Your task to perform on an android device: open app "Indeed Job Search" (install if not already installed) and go to login screen Image 0: 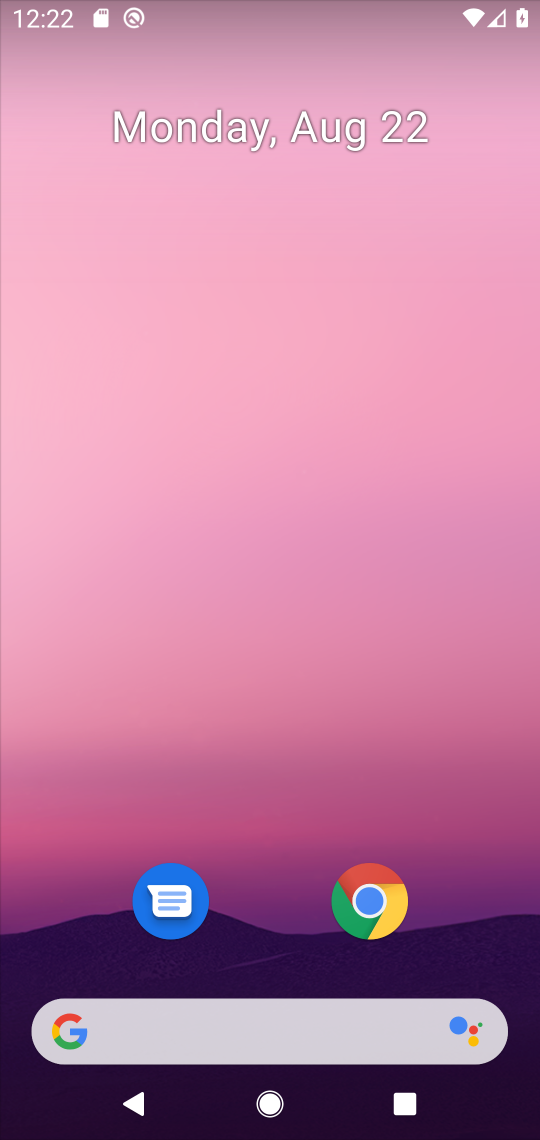
Step 0: drag from (343, 961) to (270, 99)
Your task to perform on an android device: open app "Indeed Job Search" (install if not already installed) and go to login screen Image 1: 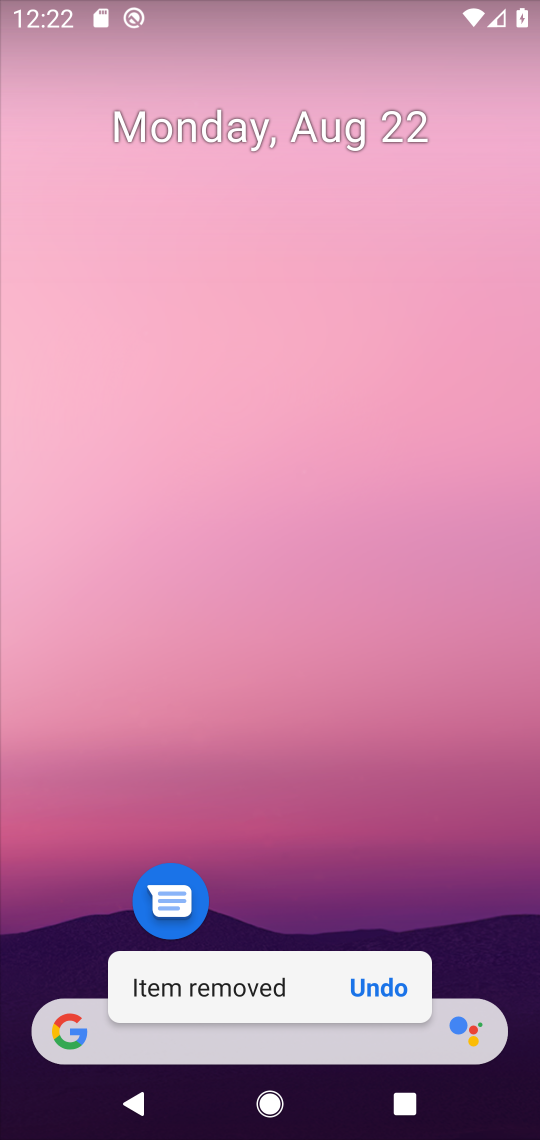
Step 1: drag from (312, 936) to (411, 119)
Your task to perform on an android device: open app "Indeed Job Search" (install if not already installed) and go to login screen Image 2: 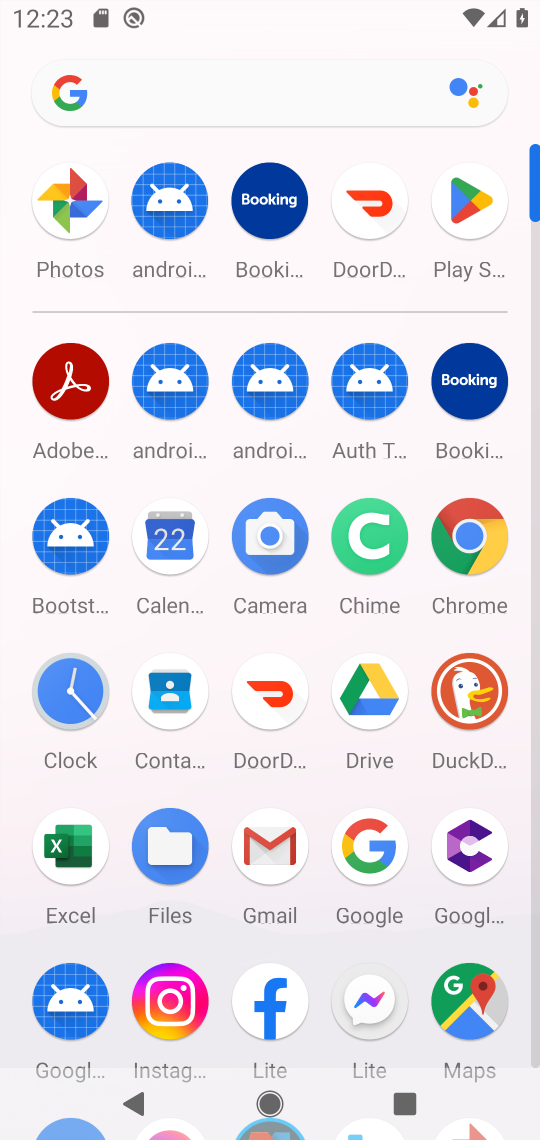
Step 2: drag from (215, 1054) to (270, 509)
Your task to perform on an android device: open app "Indeed Job Search" (install if not already installed) and go to login screen Image 3: 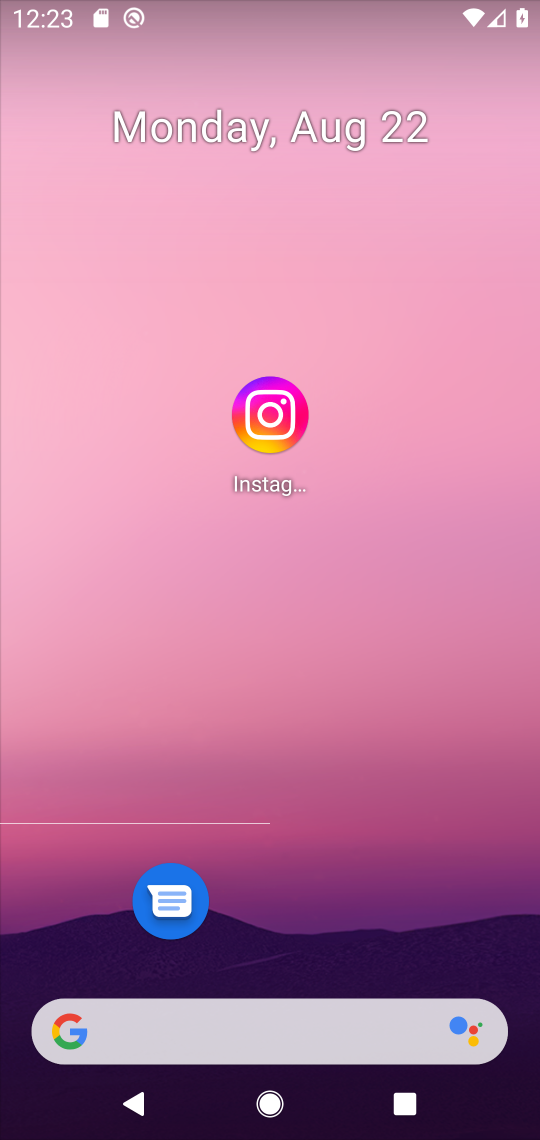
Step 3: press home button
Your task to perform on an android device: open app "Indeed Job Search" (install if not already installed) and go to login screen Image 4: 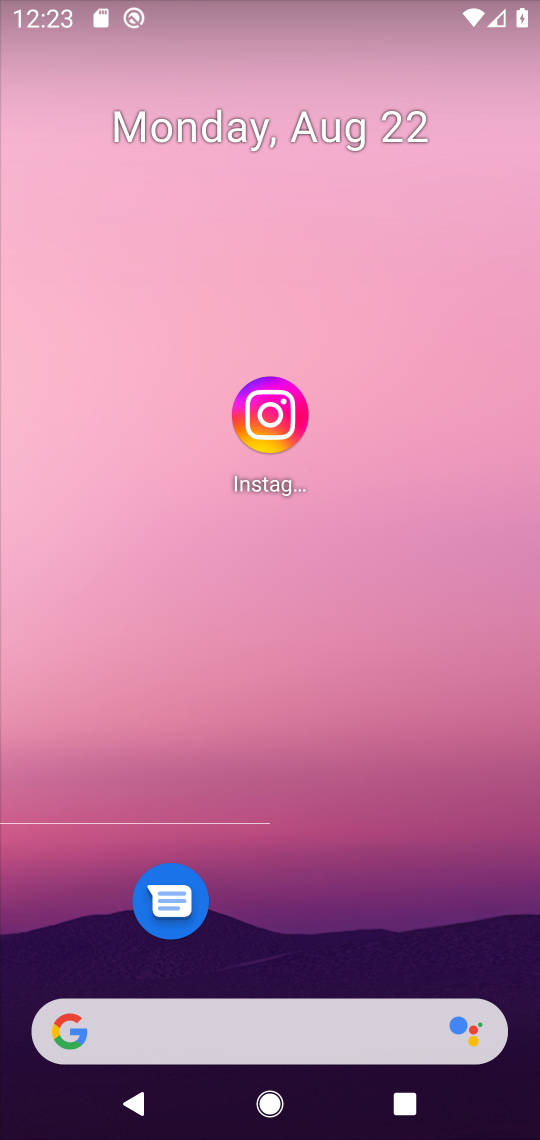
Step 4: drag from (295, 921) to (285, 302)
Your task to perform on an android device: open app "Indeed Job Search" (install if not already installed) and go to login screen Image 5: 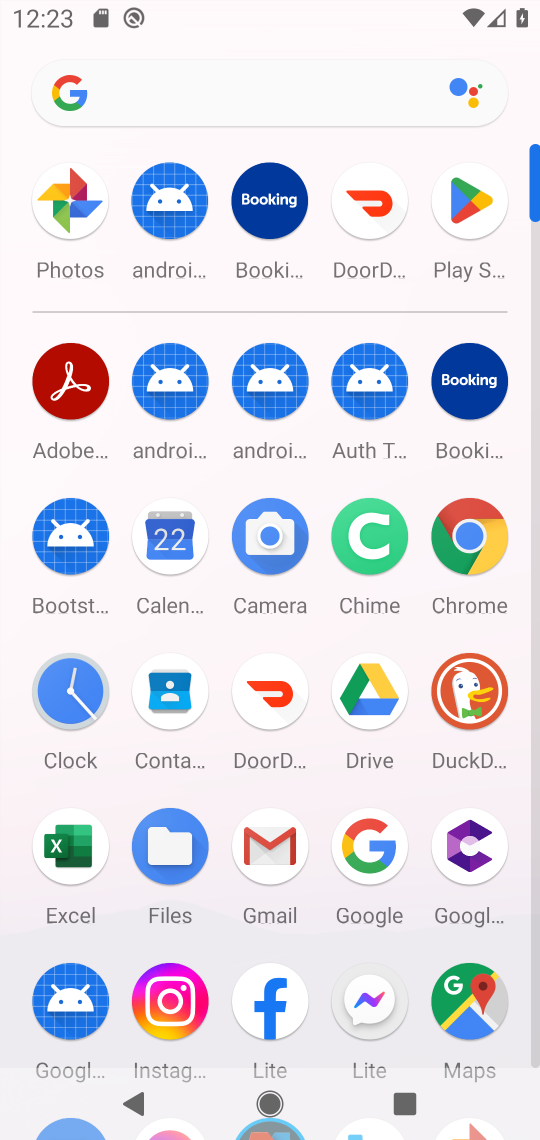
Step 5: click (529, 1048)
Your task to perform on an android device: open app "Indeed Job Search" (install if not already installed) and go to login screen Image 6: 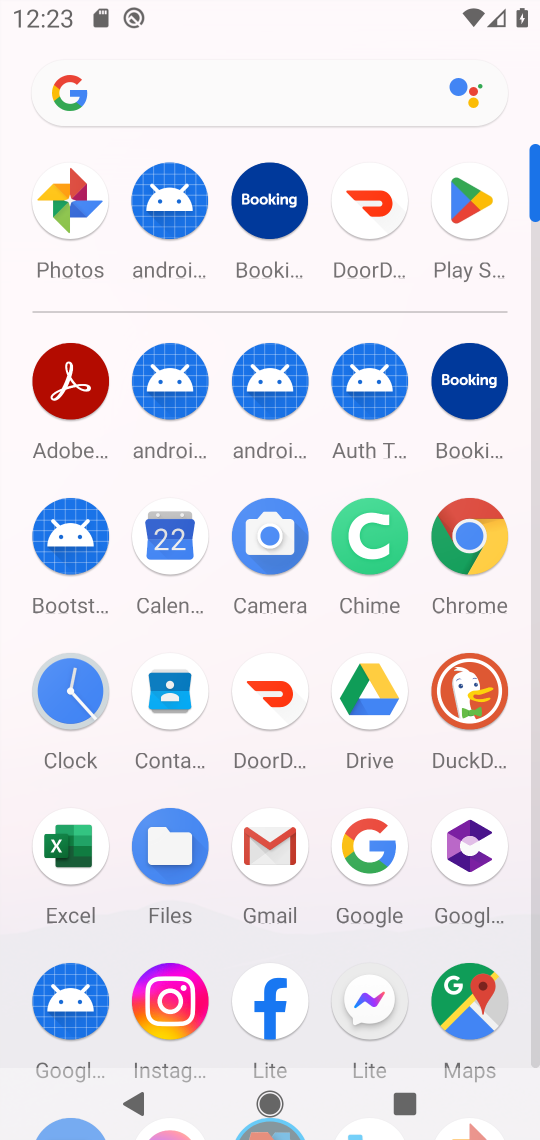
Step 6: task complete